Your task to perform on an android device: See recent photos Image 0: 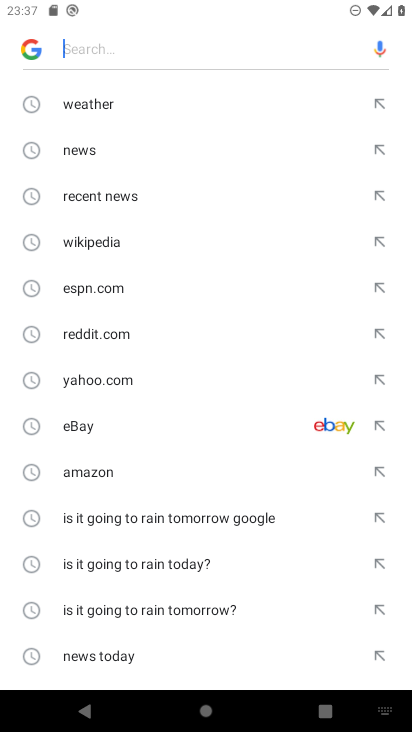
Step 0: press home button
Your task to perform on an android device: See recent photos Image 1: 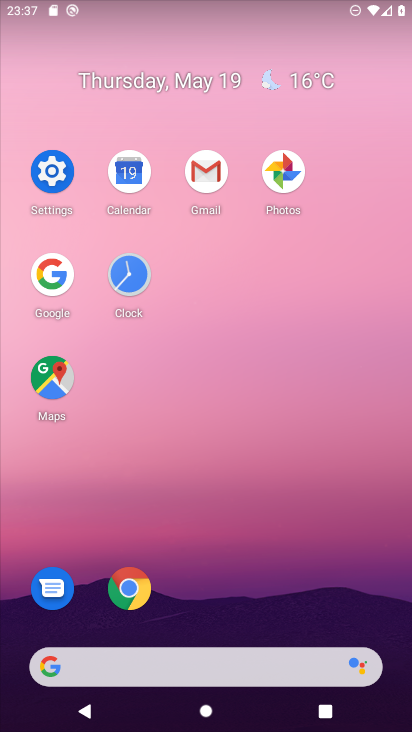
Step 1: click (292, 163)
Your task to perform on an android device: See recent photos Image 2: 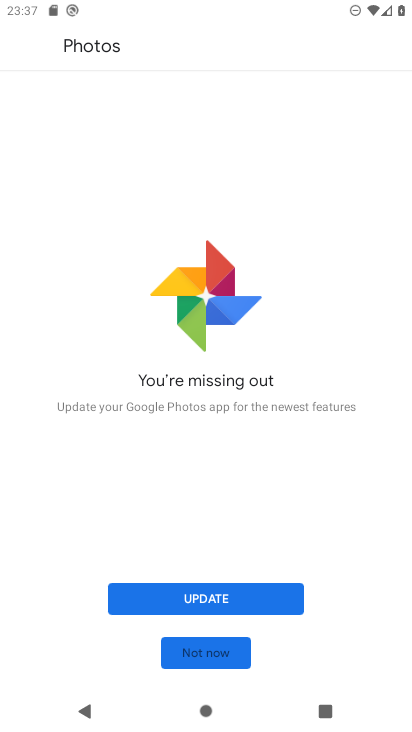
Step 2: click (267, 596)
Your task to perform on an android device: See recent photos Image 3: 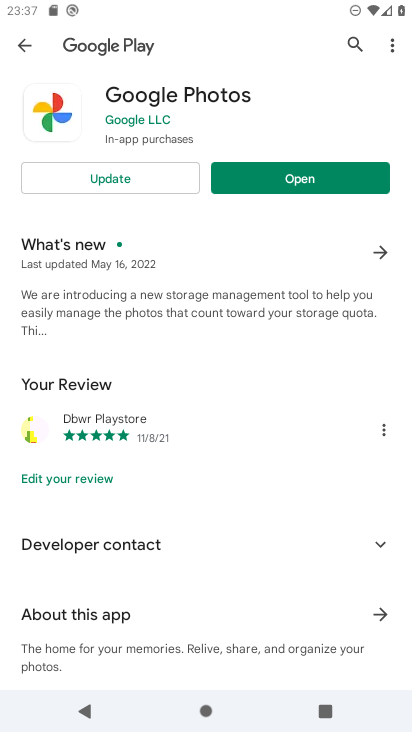
Step 3: click (150, 180)
Your task to perform on an android device: See recent photos Image 4: 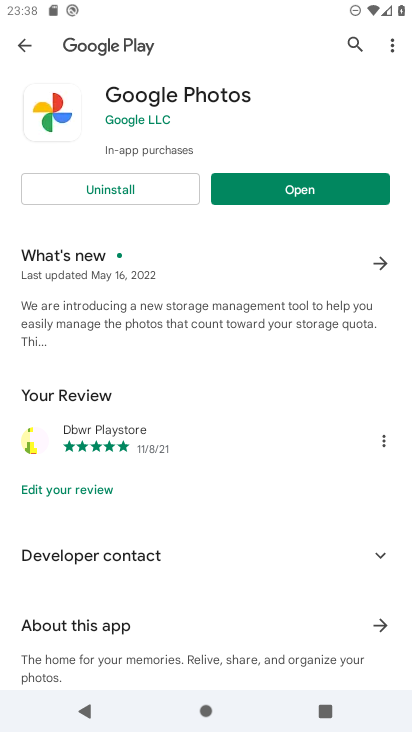
Step 4: click (336, 188)
Your task to perform on an android device: See recent photos Image 5: 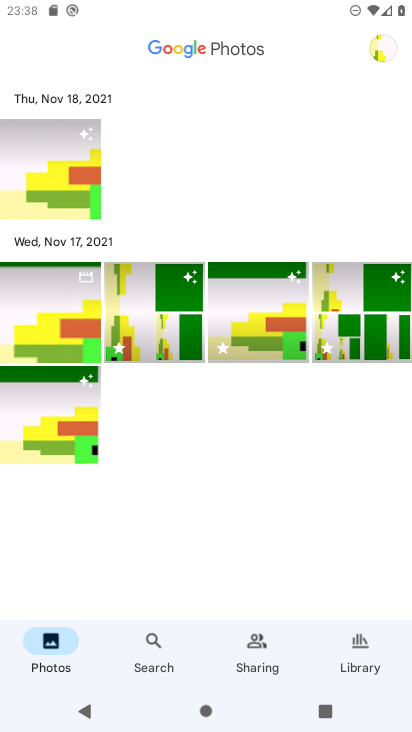
Step 5: click (48, 163)
Your task to perform on an android device: See recent photos Image 6: 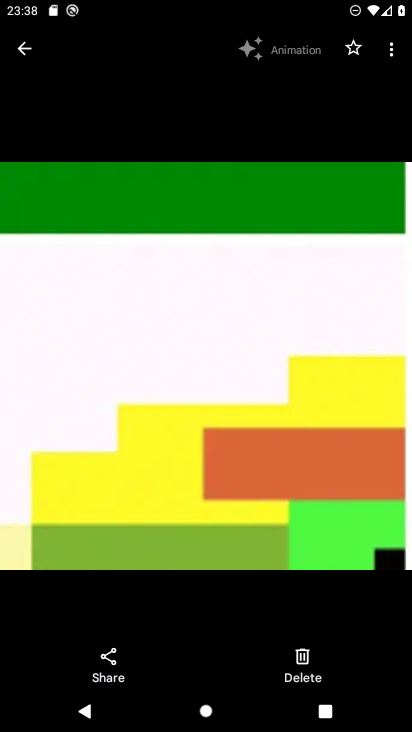
Step 6: task complete